Your task to perform on an android device: open app "VLC for Android" Image 0: 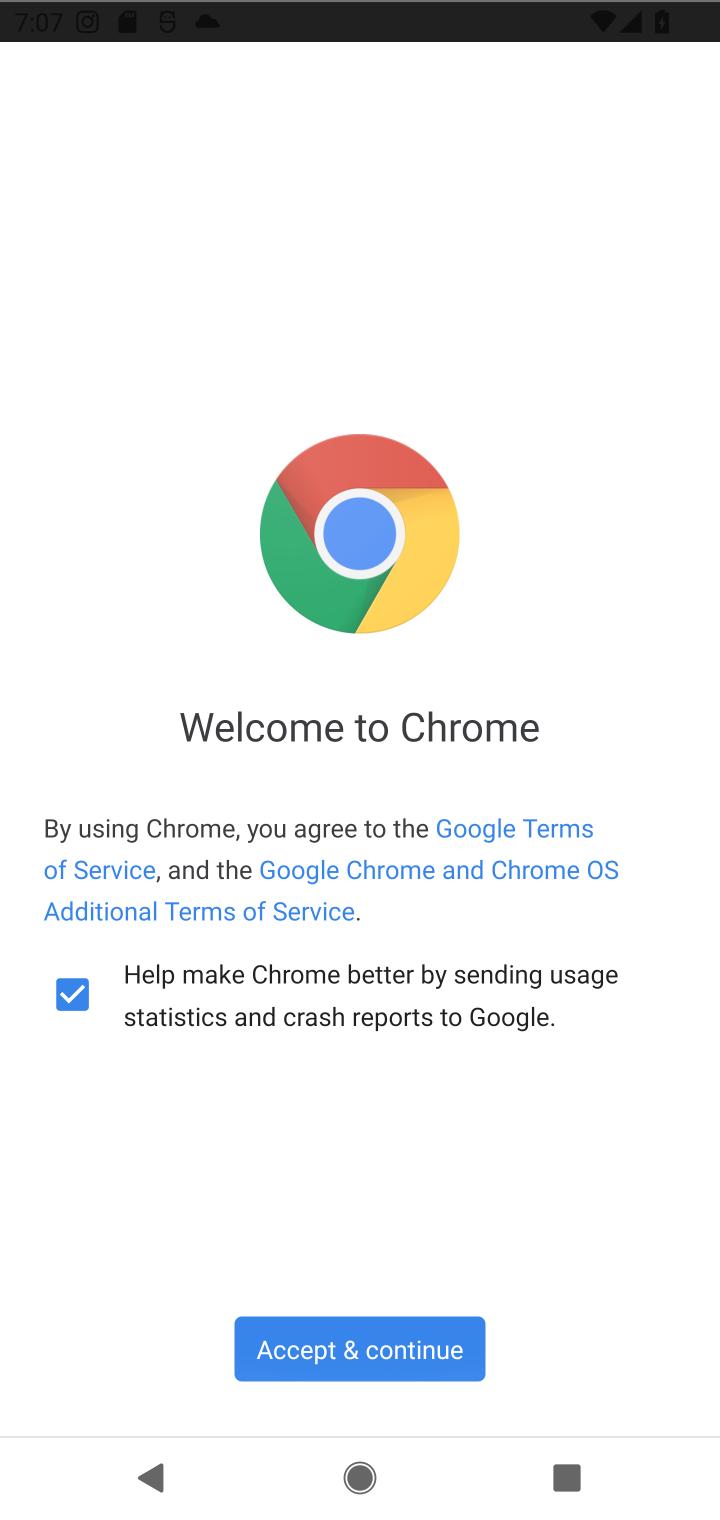
Step 0: press home button
Your task to perform on an android device: open app "VLC for Android" Image 1: 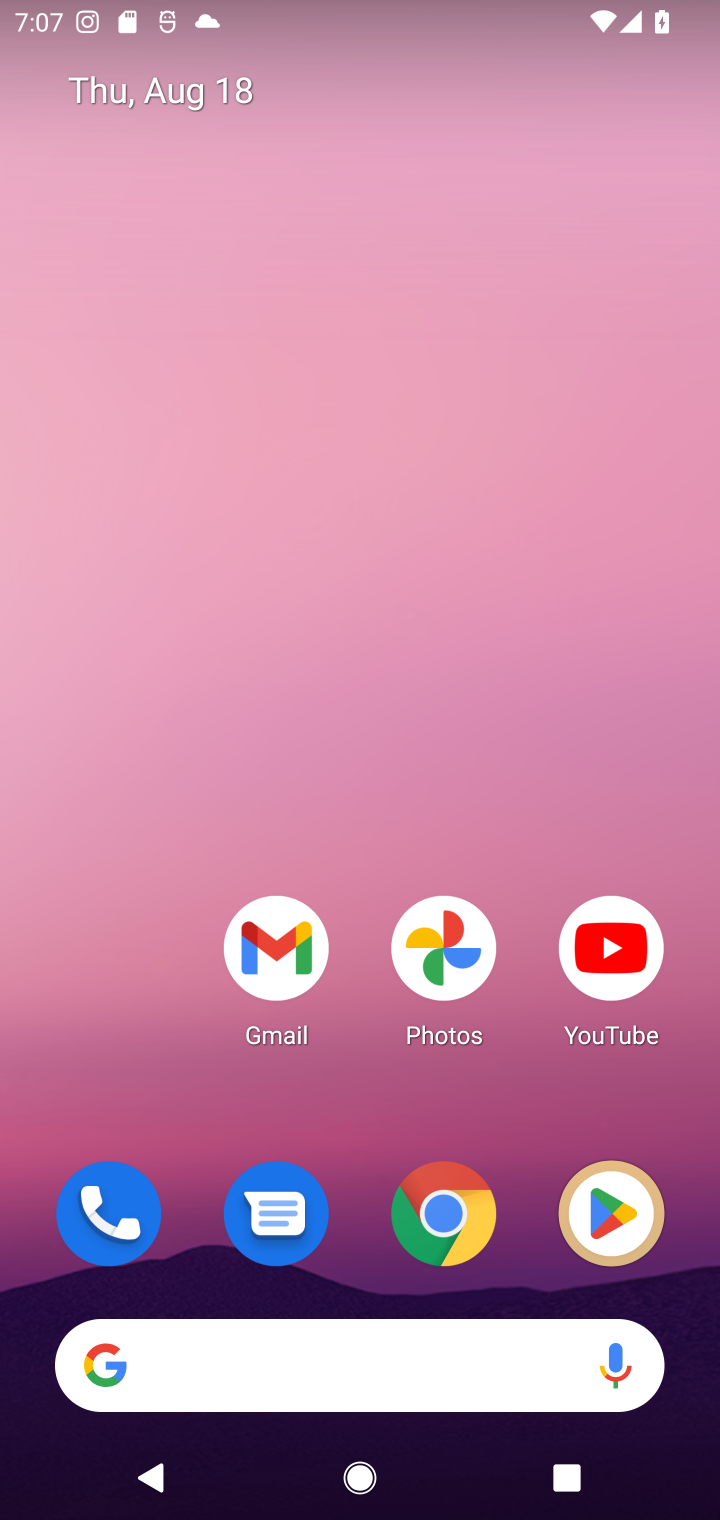
Step 1: drag from (356, 1159) to (308, 34)
Your task to perform on an android device: open app "VLC for Android" Image 2: 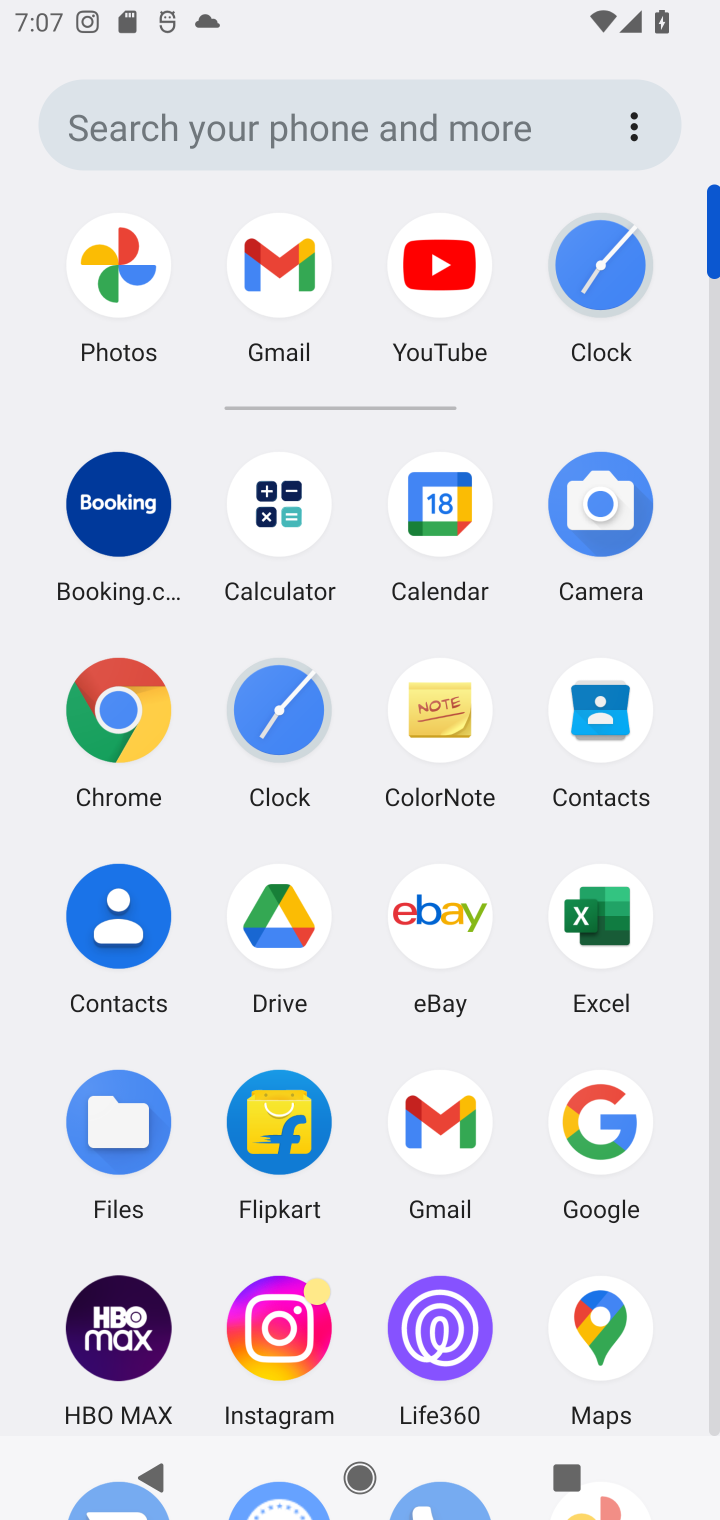
Step 2: drag from (358, 1239) to (330, 291)
Your task to perform on an android device: open app "VLC for Android" Image 3: 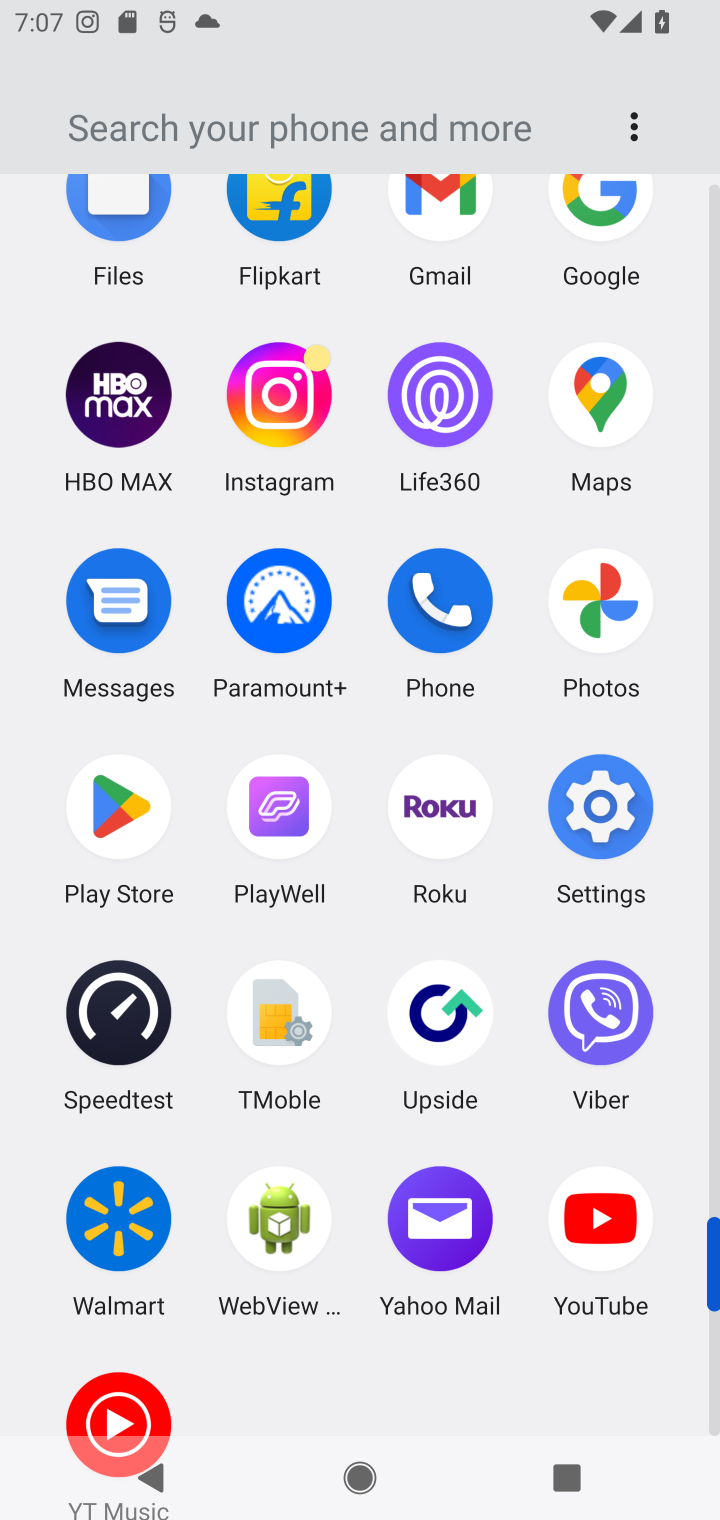
Step 3: click (110, 794)
Your task to perform on an android device: open app "VLC for Android" Image 4: 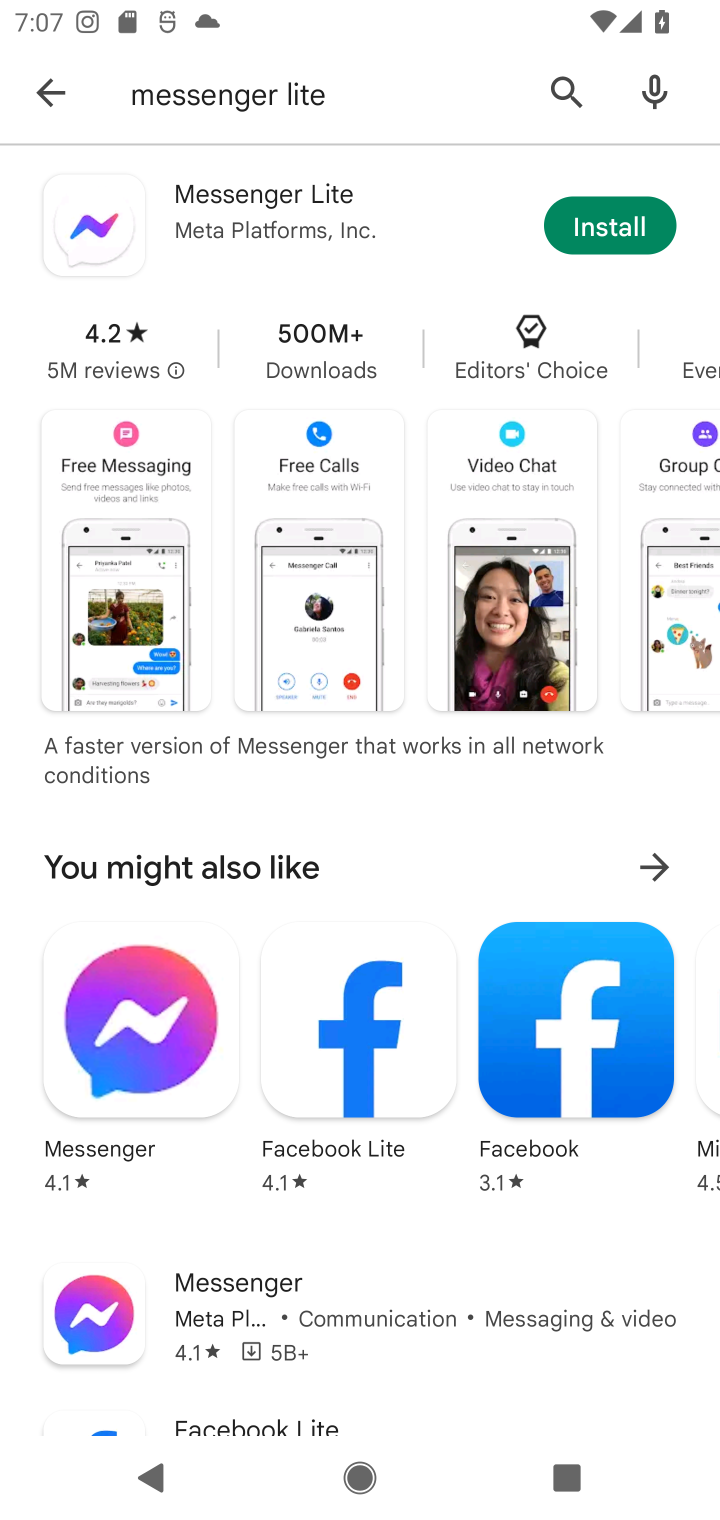
Step 4: click (560, 81)
Your task to perform on an android device: open app "VLC for Android" Image 5: 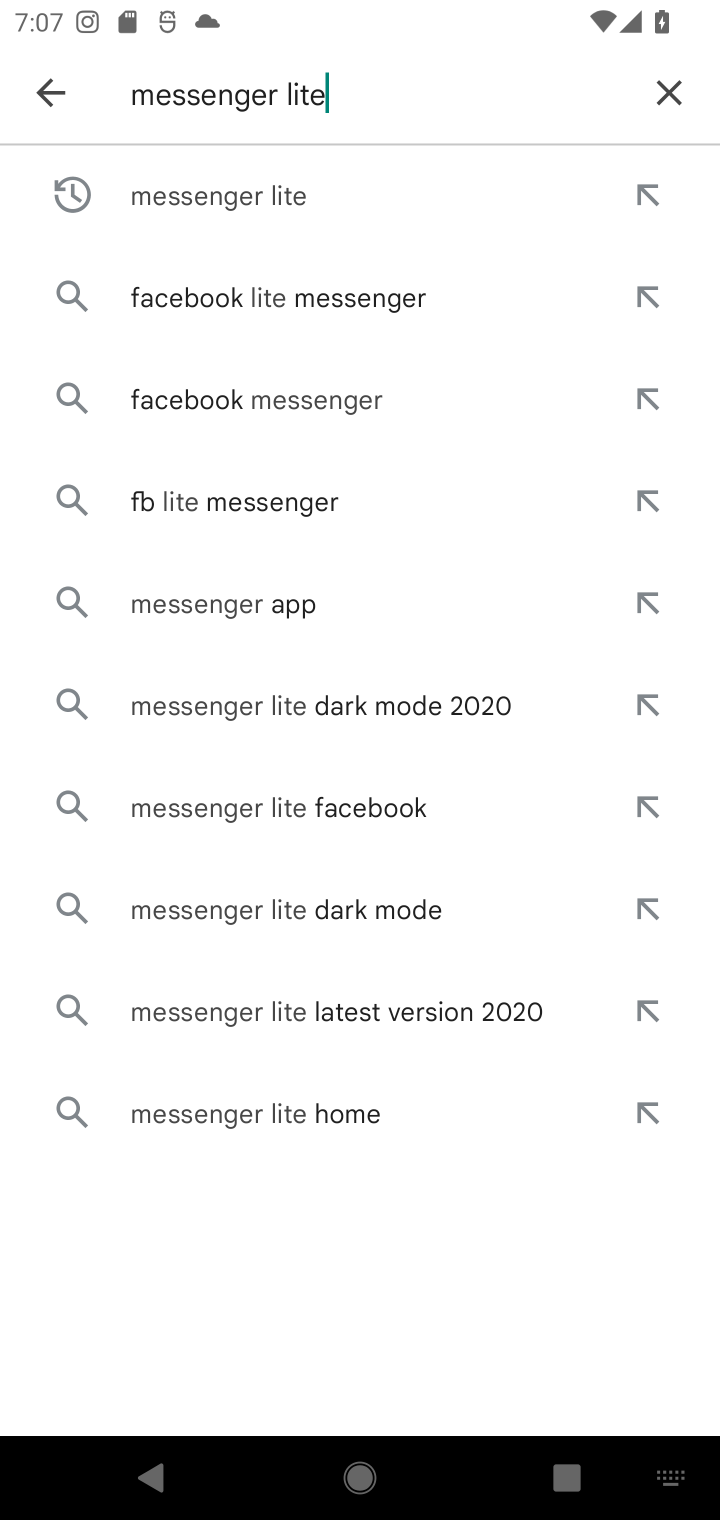
Step 5: click (678, 90)
Your task to perform on an android device: open app "VLC for Android" Image 6: 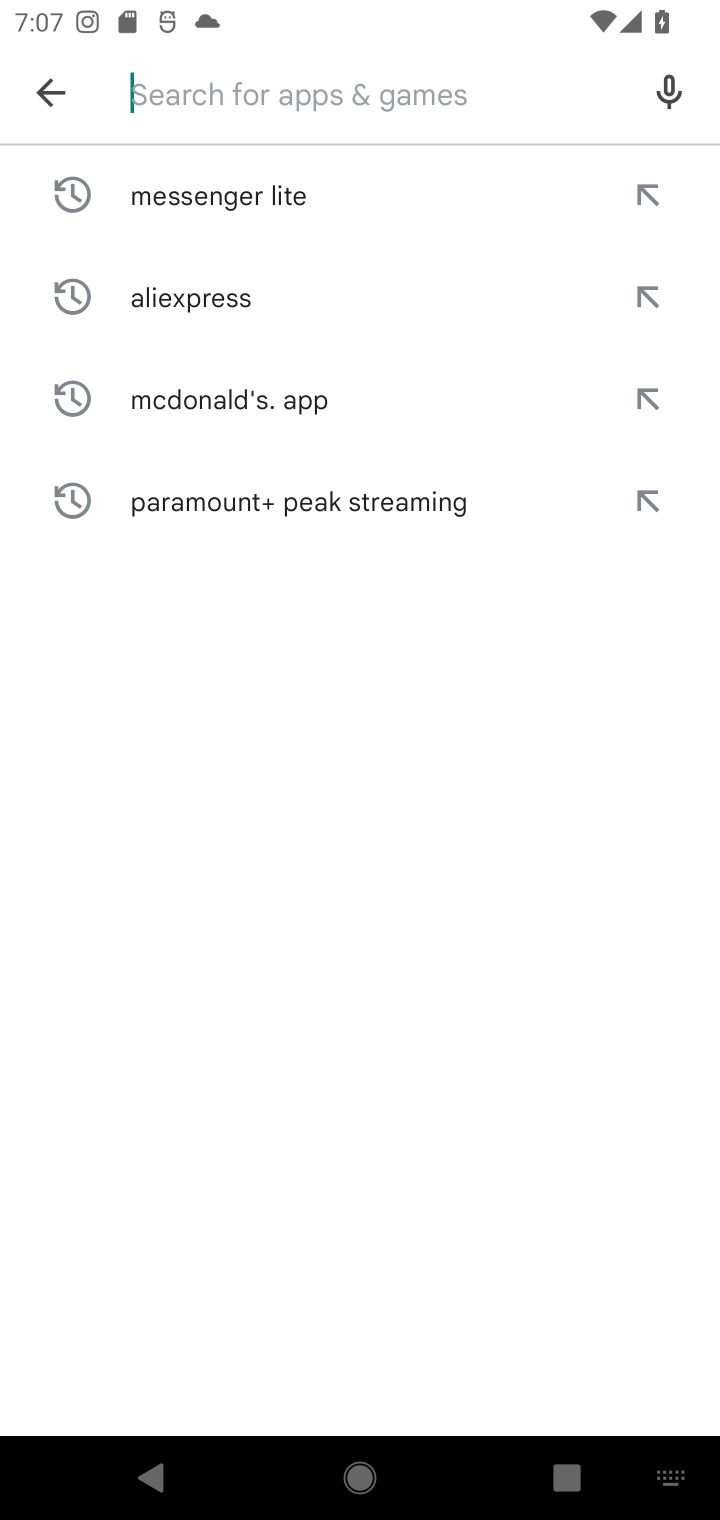
Step 6: type "VLC for Android"
Your task to perform on an android device: open app "VLC for Android" Image 7: 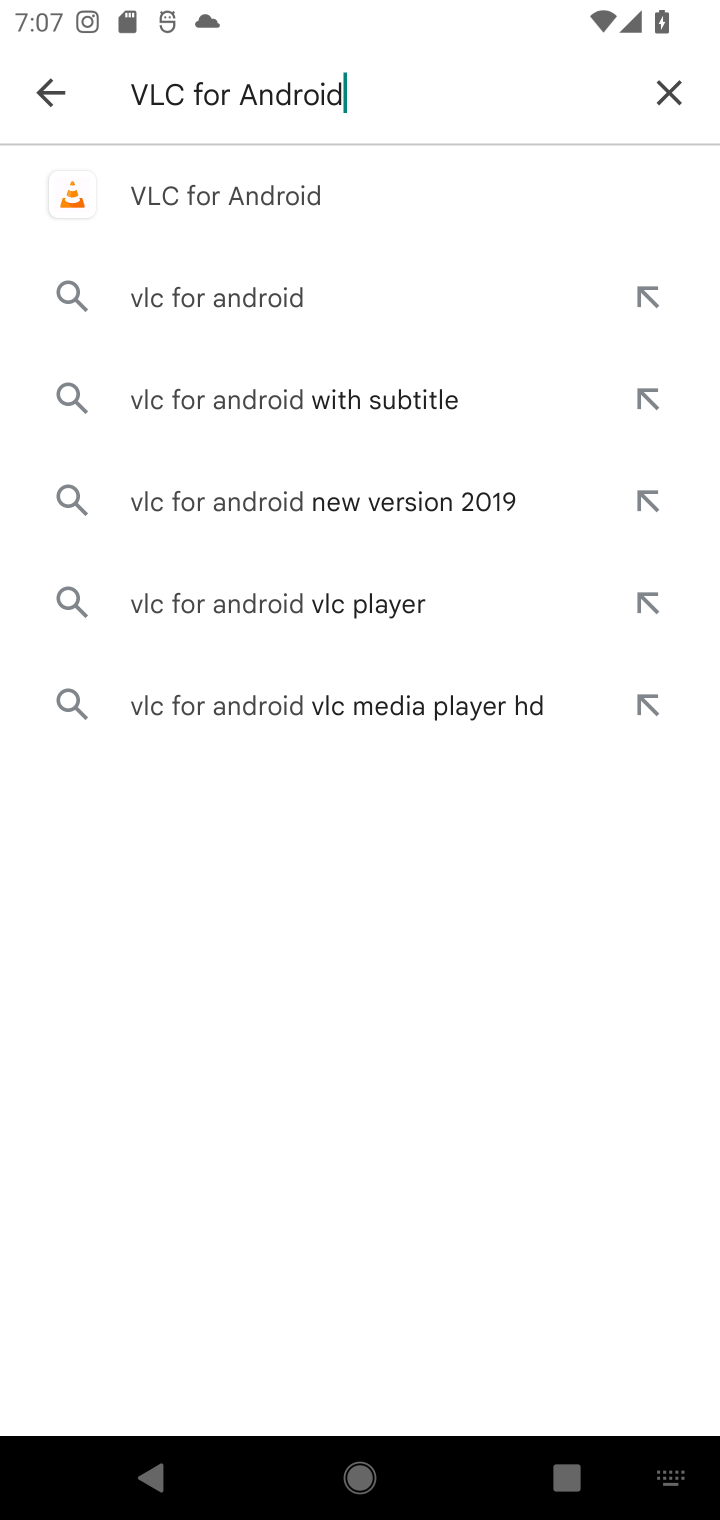
Step 7: click (345, 201)
Your task to perform on an android device: open app "VLC for Android" Image 8: 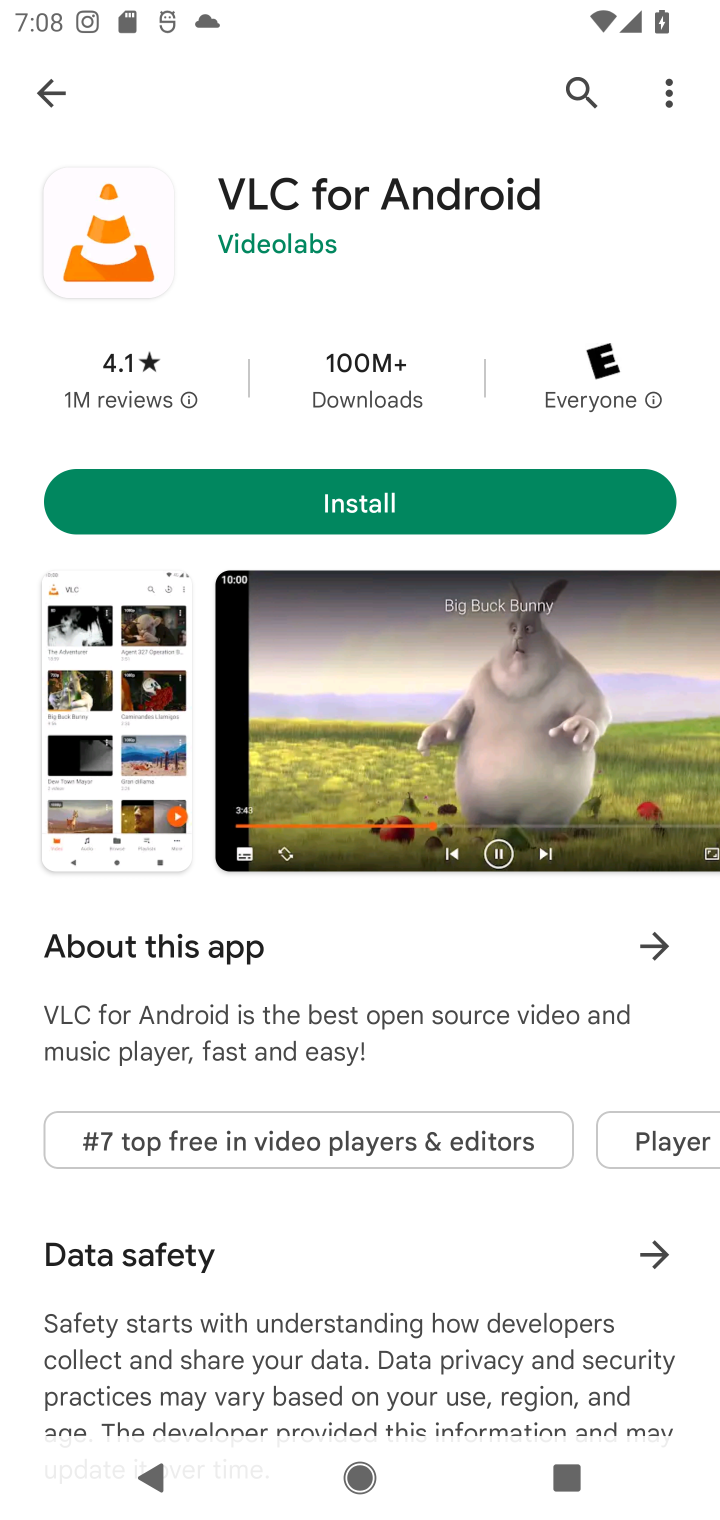
Step 8: task complete